Your task to perform on an android device: What's the weather going to be this weekend? Image 0: 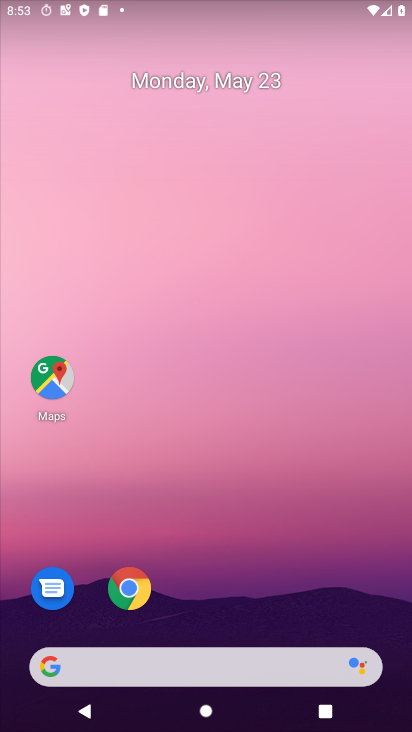
Step 0: drag from (2, 234) to (409, 239)
Your task to perform on an android device: What's the weather going to be this weekend? Image 1: 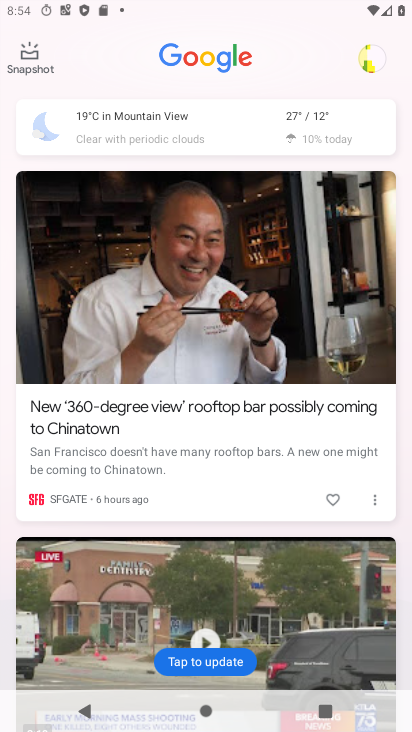
Step 1: click (290, 118)
Your task to perform on an android device: What's the weather going to be this weekend? Image 2: 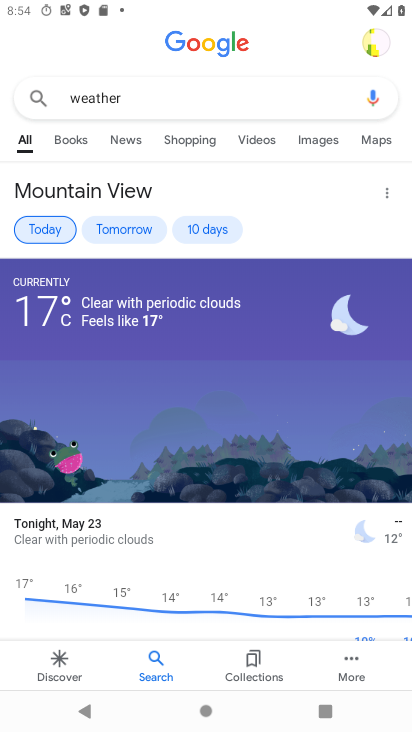
Step 2: click (216, 227)
Your task to perform on an android device: What's the weather going to be this weekend? Image 3: 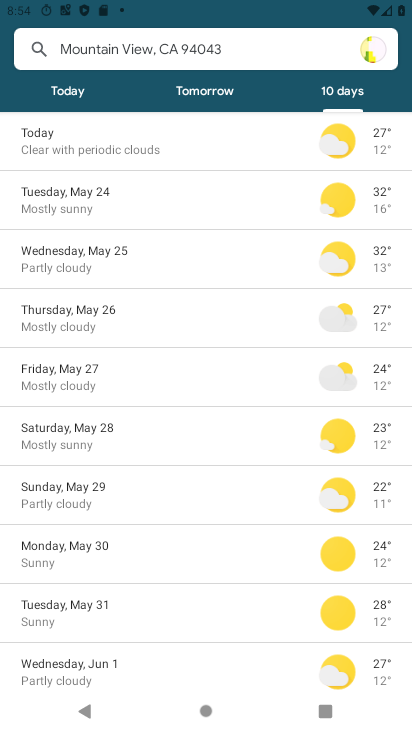
Step 3: task complete